Your task to perform on an android device: Show the shopping cart on walmart.com. Search for "logitech g933" on walmart.com, select the first entry, and add it to the cart. Image 0: 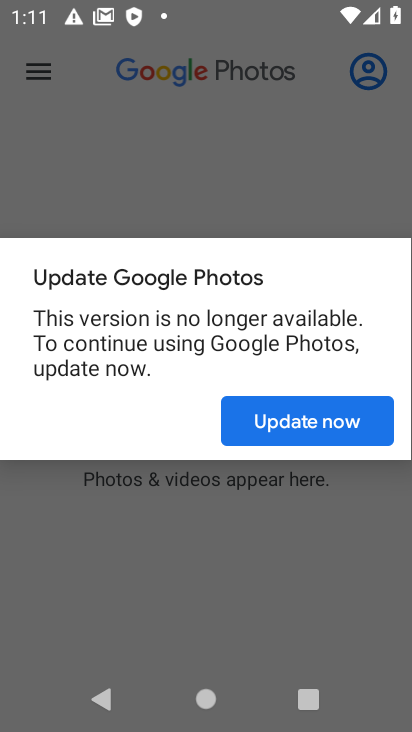
Step 0: press home button
Your task to perform on an android device: Show the shopping cart on walmart.com. Search for "logitech g933" on walmart.com, select the first entry, and add it to the cart. Image 1: 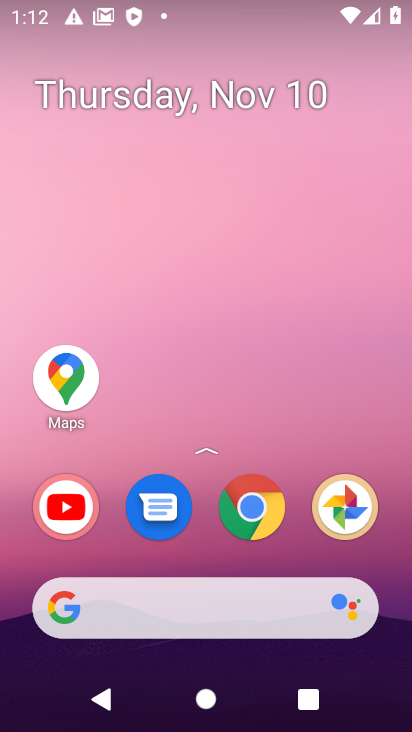
Step 1: click (238, 517)
Your task to perform on an android device: Show the shopping cart on walmart.com. Search for "logitech g933" on walmart.com, select the first entry, and add it to the cart. Image 2: 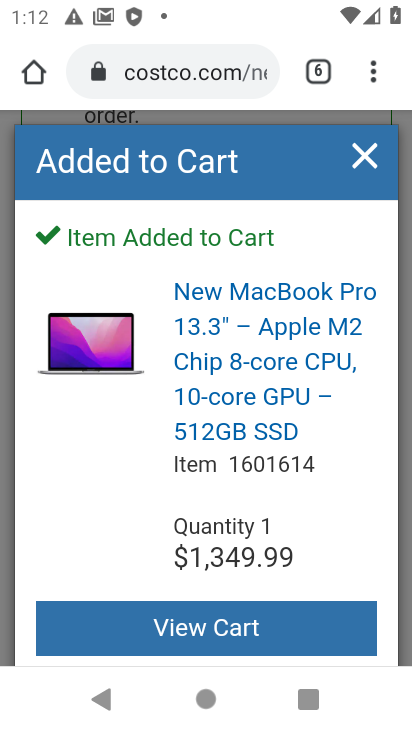
Step 2: click (317, 77)
Your task to perform on an android device: Show the shopping cart on walmart.com. Search for "logitech g933" on walmart.com, select the first entry, and add it to the cart. Image 3: 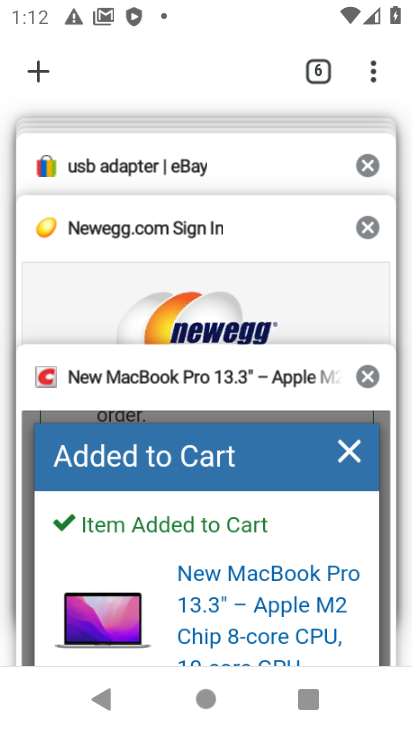
Step 3: drag from (269, 136) to (265, 335)
Your task to perform on an android device: Show the shopping cart on walmart.com. Search for "logitech g933" on walmart.com, select the first entry, and add it to the cart. Image 4: 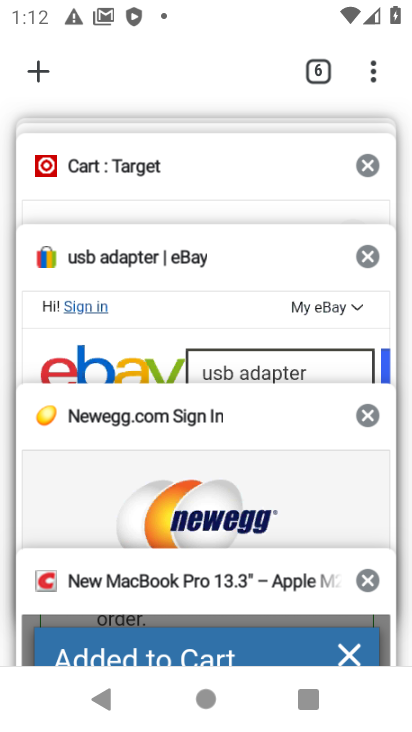
Step 4: drag from (270, 205) to (277, 375)
Your task to perform on an android device: Show the shopping cart on walmart.com. Search for "logitech g933" on walmart.com, select the first entry, and add it to the cart. Image 5: 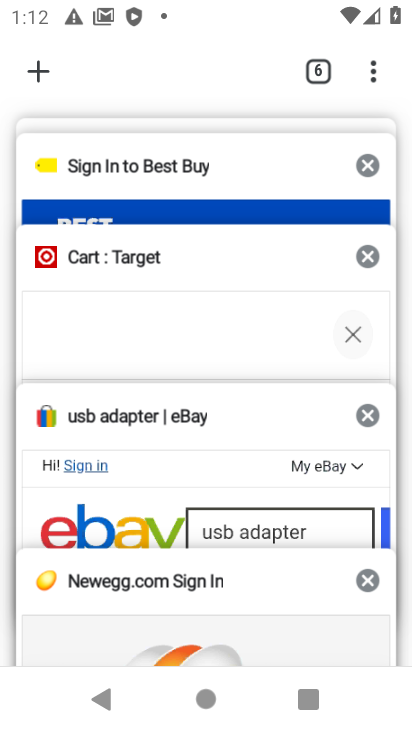
Step 5: drag from (326, 138) to (323, 192)
Your task to perform on an android device: Show the shopping cart on walmart.com. Search for "logitech g933" on walmart.com, select the first entry, and add it to the cart. Image 6: 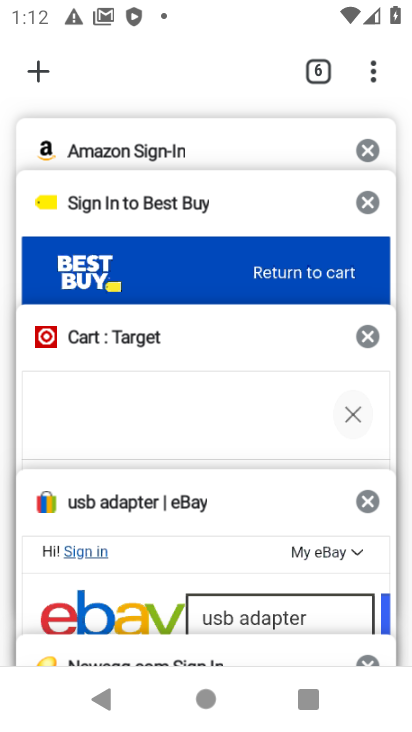
Step 6: drag from (275, 140) to (281, 193)
Your task to perform on an android device: Show the shopping cart on walmart.com. Search for "logitech g933" on walmart.com, select the first entry, and add it to the cart. Image 7: 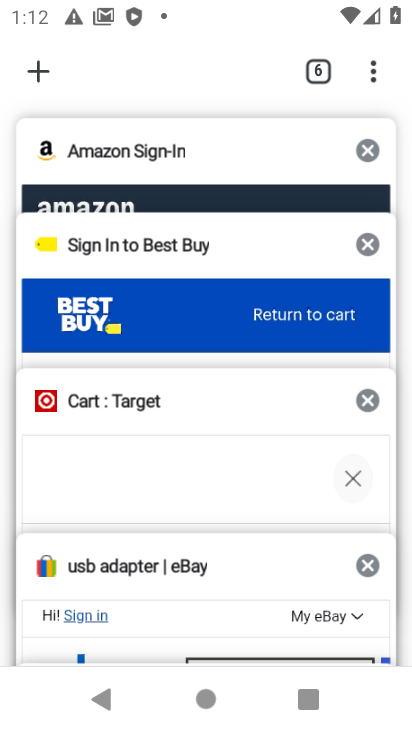
Step 7: drag from (239, 449) to (287, 285)
Your task to perform on an android device: Show the shopping cart on walmart.com. Search for "logitech g933" on walmart.com, select the first entry, and add it to the cart. Image 8: 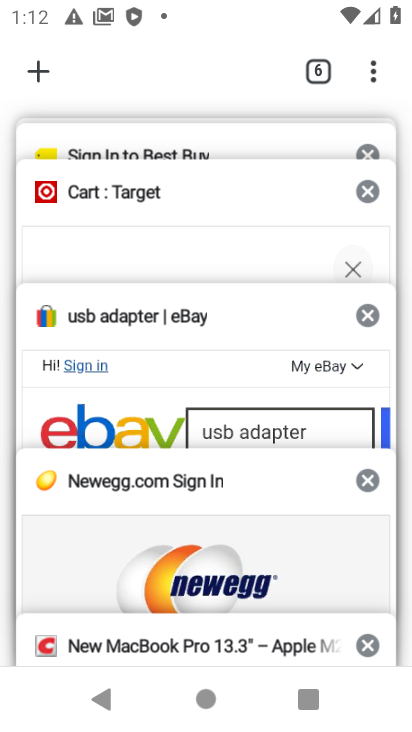
Step 8: drag from (220, 618) to (302, 393)
Your task to perform on an android device: Show the shopping cart on walmart.com. Search for "logitech g933" on walmart.com, select the first entry, and add it to the cart. Image 9: 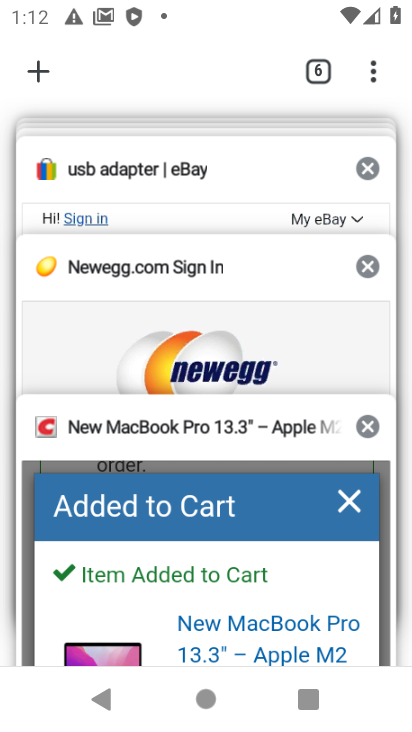
Step 9: drag from (299, 514) to (353, 208)
Your task to perform on an android device: Show the shopping cart on walmart.com. Search for "logitech g933" on walmart.com, select the first entry, and add it to the cart. Image 10: 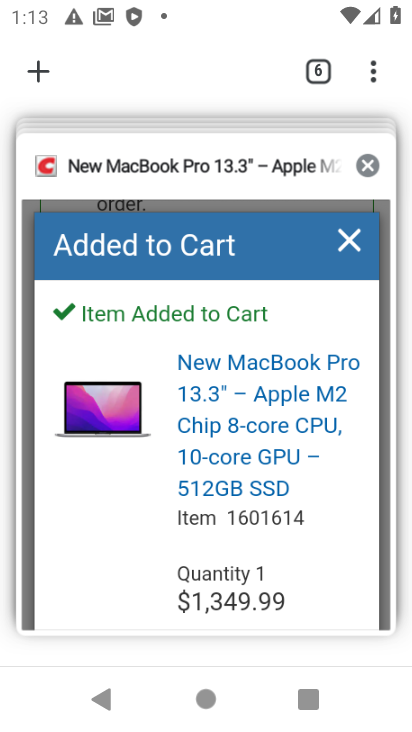
Step 10: click (42, 75)
Your task to perform on an android device: Show the shopping cart on walmart.com. Search for "logitech g933" on walmart.com, select the first entry, and add it to the cart. Image 11: 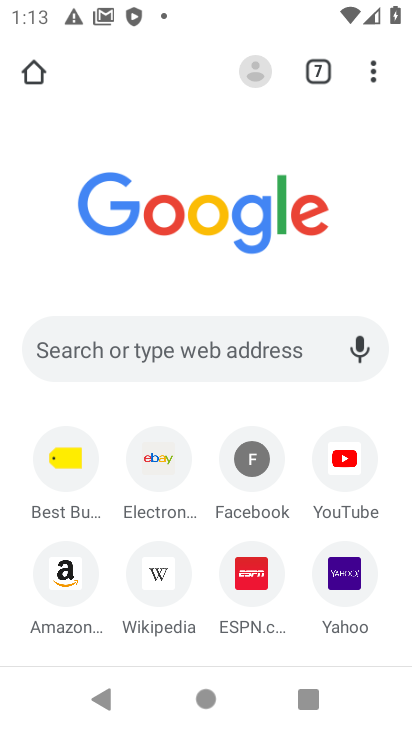
Step 11: click (148, 357)
Your task to perform on an android device: Show the shopping cart on walmart.com. Search for "logitech g933" on walmart.com, select the first entry, and add it to the cart. Image 12: 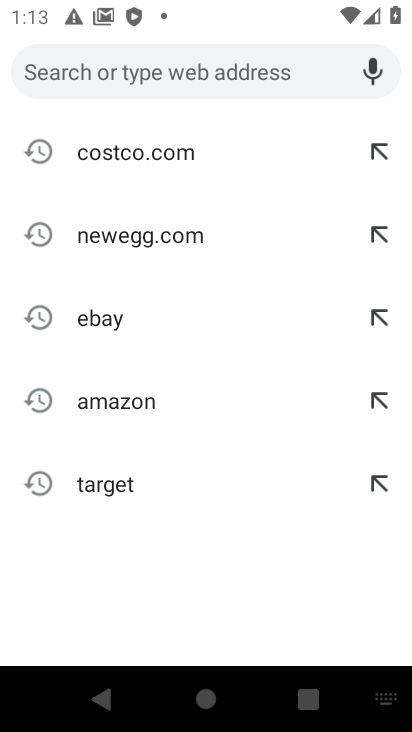
Step 12: type "walmart"
Your task to perform on an android device: Show the shopping cart on walmart.com. Search for "logitech g933" on walmart.com, select the first entry, and add it to the cart. Image 13: 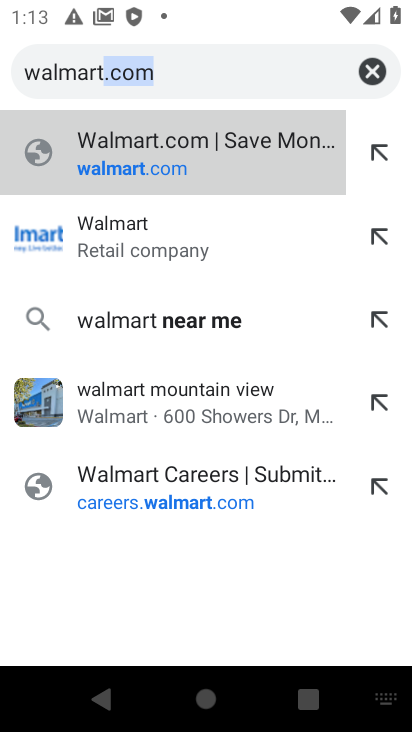
Step 13: click (133, 167)
Your task to perform on an android device: Show the shopping cart on walmart.com. Search for "logitech g933" on walmart.com, select the first entry, and add it to the cart. Image 14: 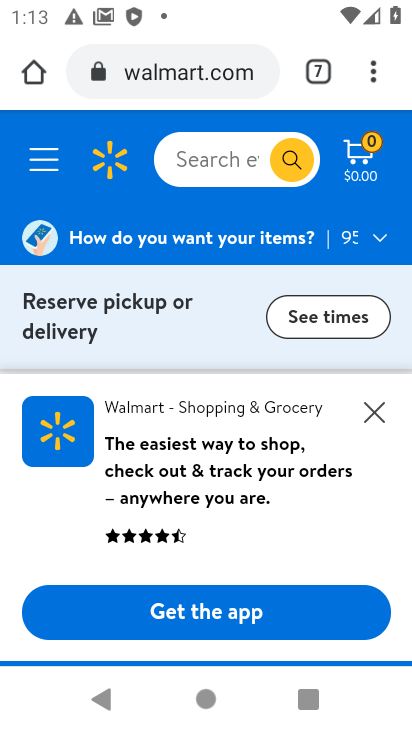
Step 14: click (374, 414)
Your task to perform on an android device: Show the shopping cart on walmart.com. Search for "logitech g933" on walmart.com, select the first entry, and add it to the cart. Image 15: 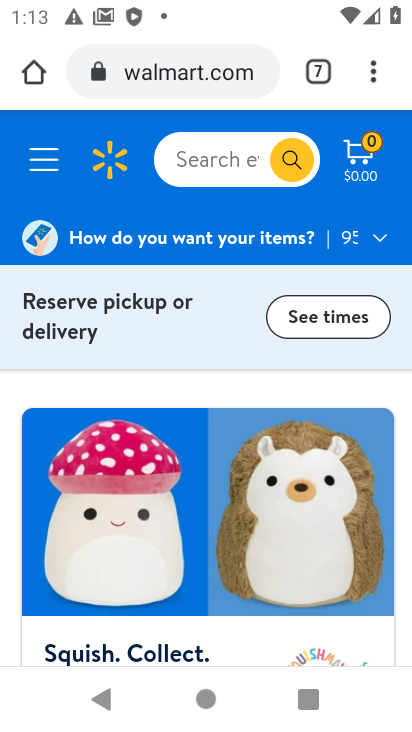
Step 15: click (213, 159)
Your task to perform on an android device: Show the shopping cart on walmart.com. Search for "logitech g933" on walmart.com, select the first entry, and add it to the cart. Image 16: 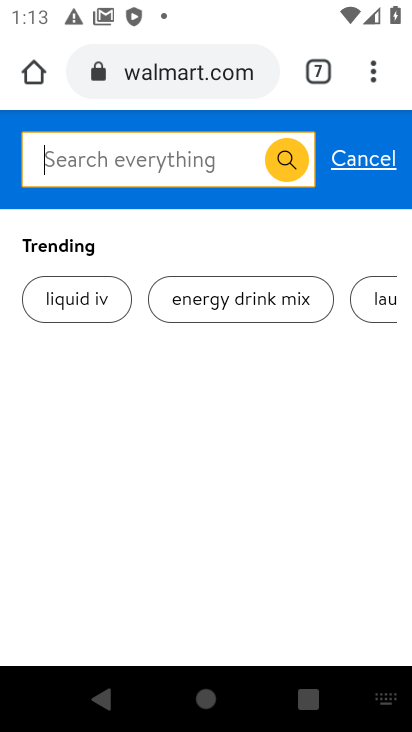
Step 16: type "logitech g933"
Your task to perform on an android device: Show the shopping cart on walmart.com. Search for "logitech g933" on walmart.com, select the first entry, and add it to the cart. Image 17: 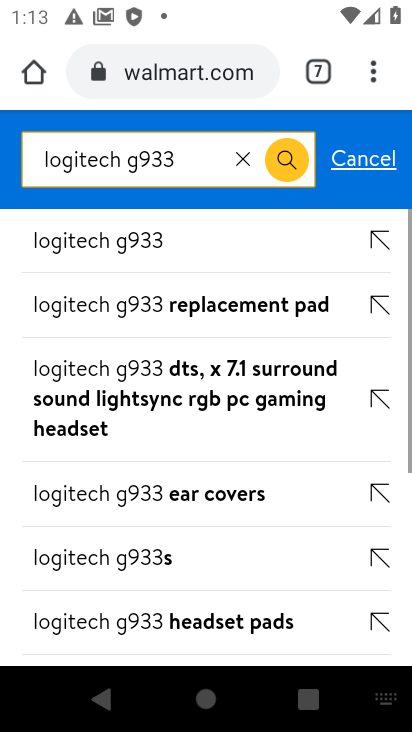
Step 17: click (132, 234)
Your task to perform on an android device: Show the shopping cart on walmart.com. Search for "logitech g933" on walmart.com, select the first entry, and add it to the cart. Image 18: 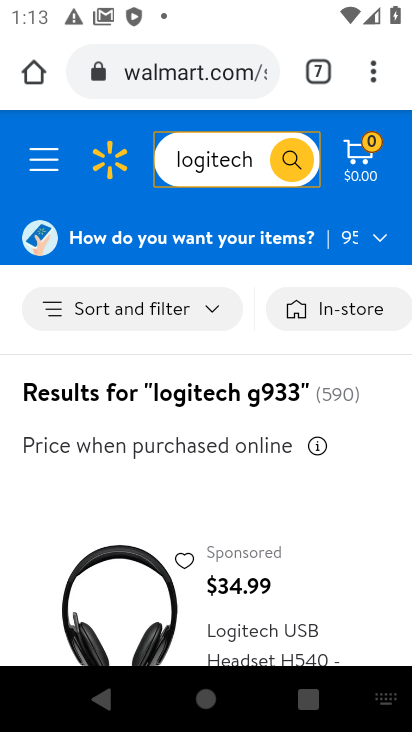
Step 18: drag from (241, 503) to (305, 263)
Your task to perform on an android device: Show the shopping cart on walmart.com. Search for "logitech g933" on walmart.com, select the first entry, and add it to the cart. Image 19: 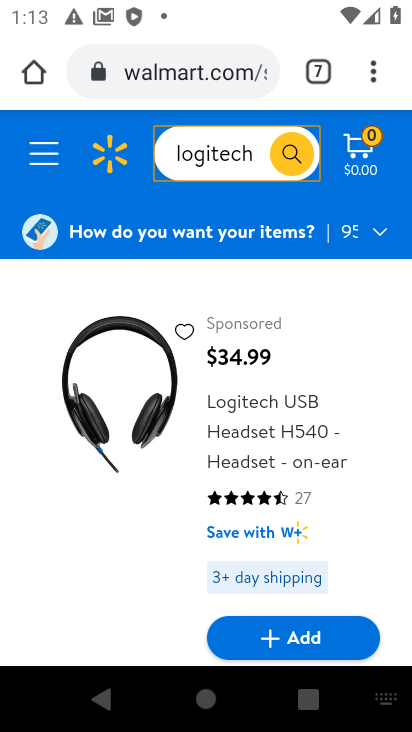
Step 19: click (320, 640)
Your task to perform on an android device: Show the shopping cart on walmart.com. Search for "logitech g933" on walmart.com, select the first entry, and add it to the cart. Image 20: 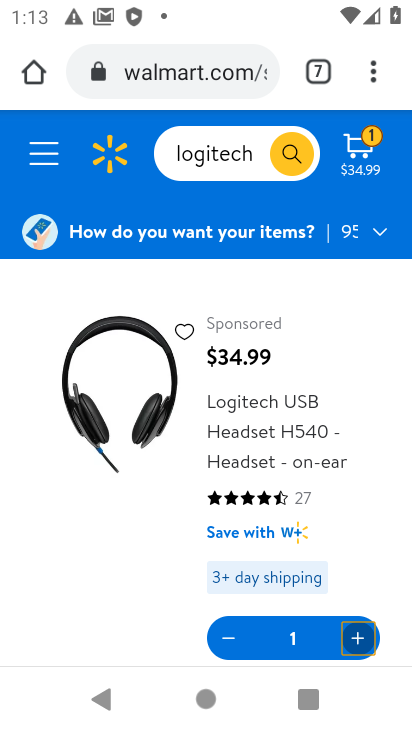
Step 20: task complete